Your task to perform on an android device: How do I get to the nearest Best Buy? Image 0: 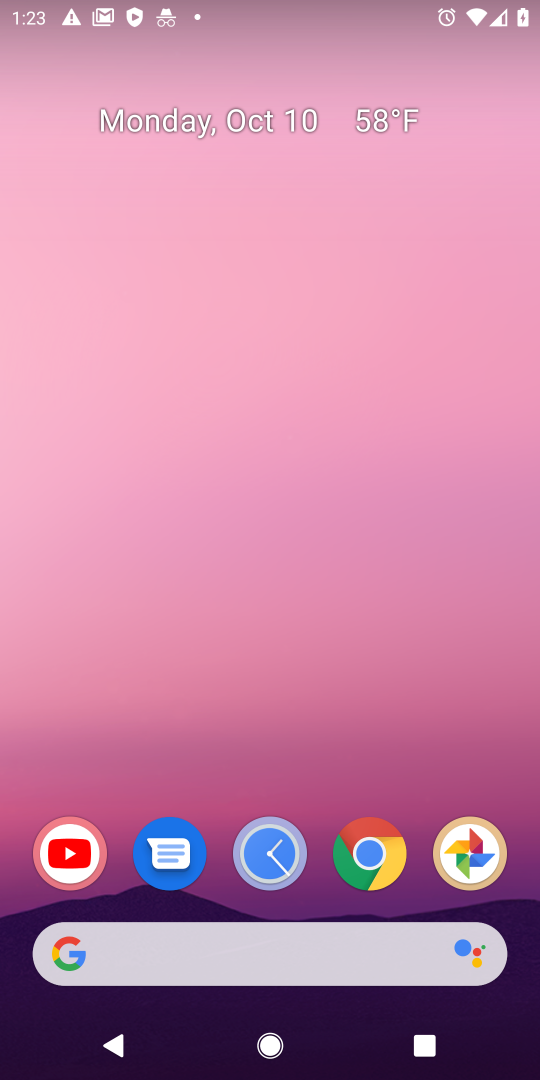
Step 0: click (370, 860)
Your task to perform on an android device: How do I get to the nearest Best Buy? Image 1: 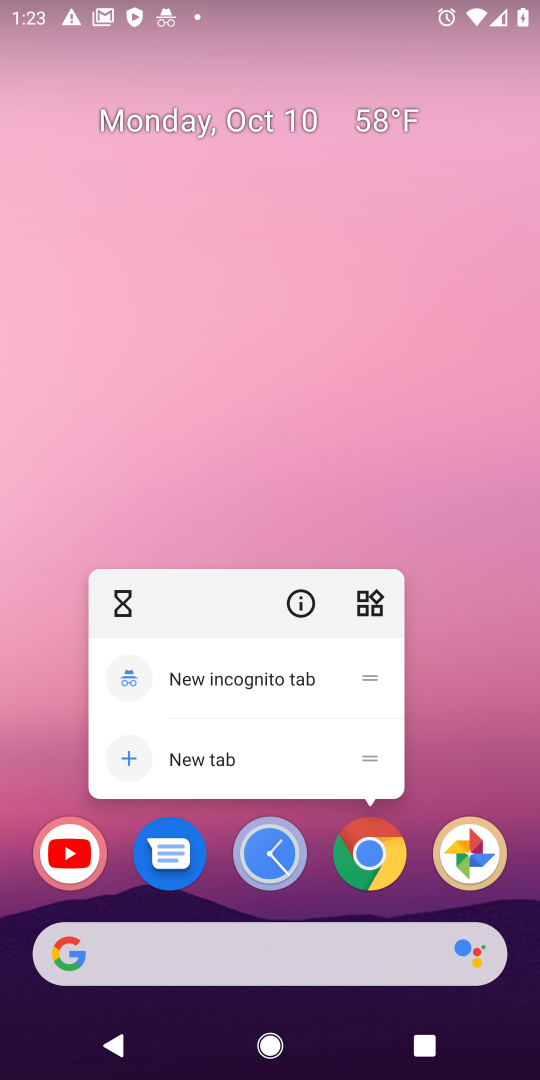
Step 1: click (380, 861)
Your task to perform on an android device: How do I get to the nearest Best Buy? Image 2: 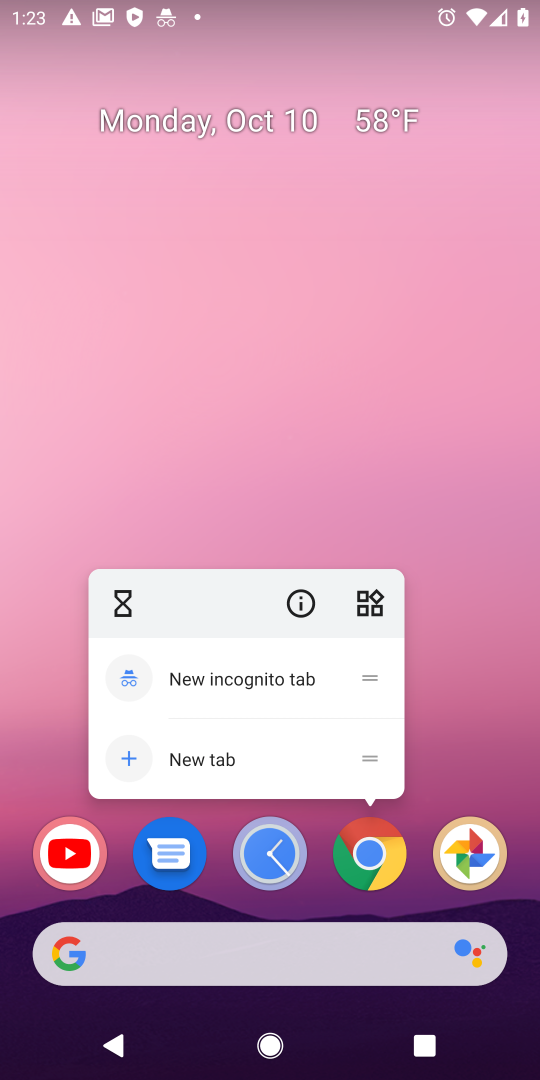
Step 2: click (380, 861)
Your task to perform on an android device: How do I get to the nearest Best Buy? Image 3: 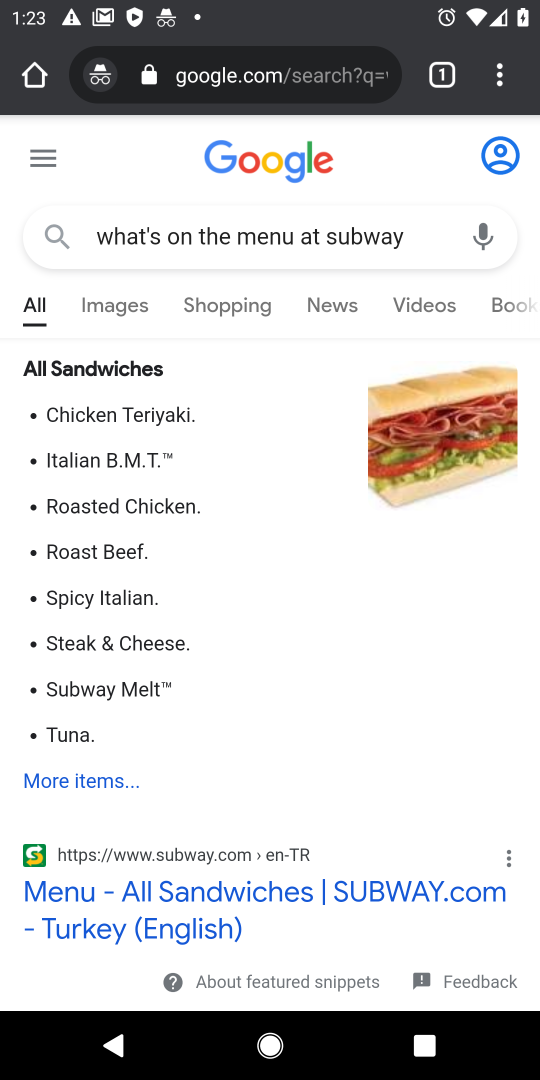
Step 3: click (343, 229)
Your task to perform on an android device: How do I get to the nearest Best Buy? Image 4: 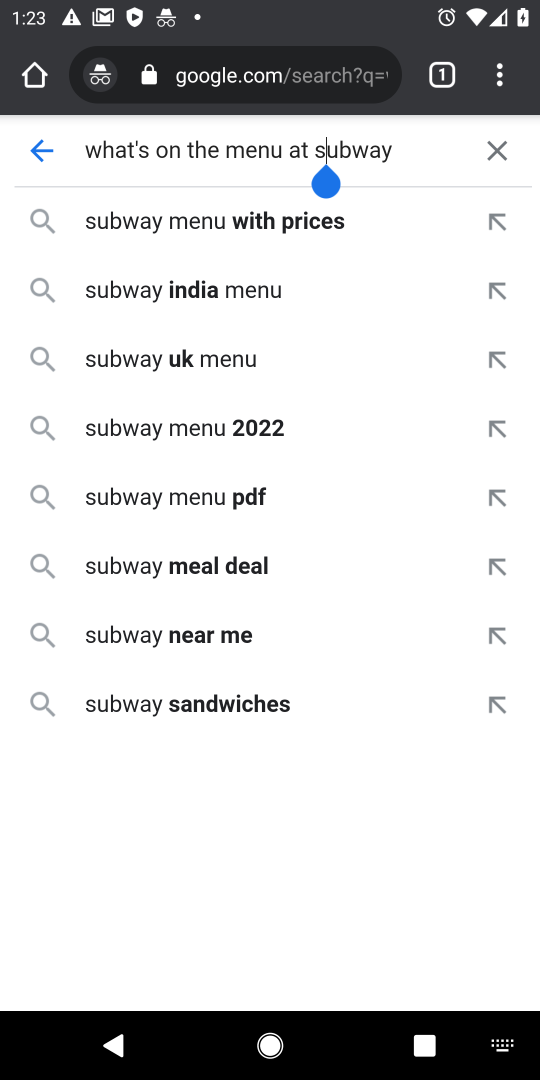
Step 4: click (505, 159)
Your task to perform on an android device: How do I get to the nearest Best Buy? Image 5: 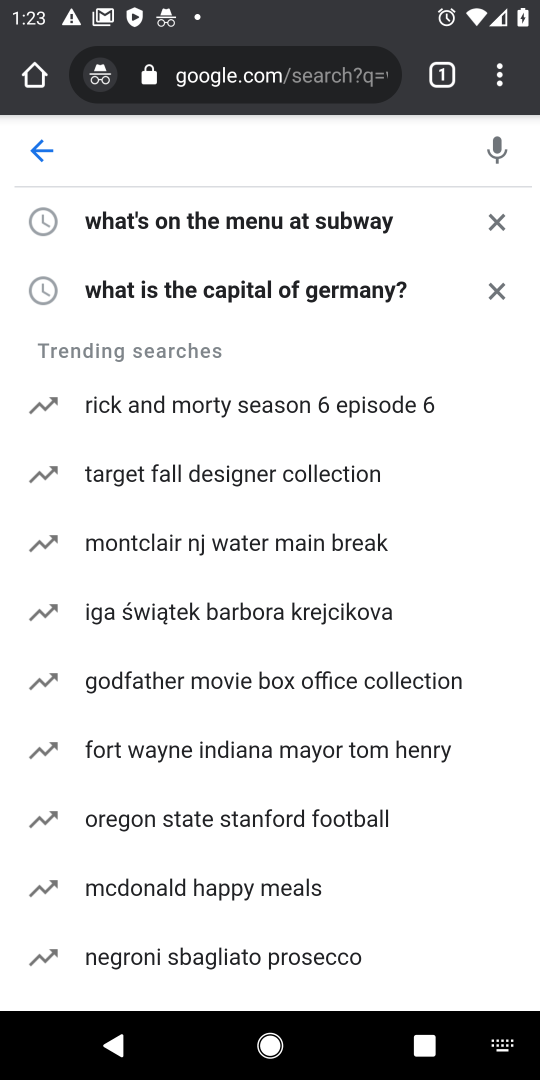
Step 5: type "How do I get to the nearest Best Buy?"
Your task to perform on an android device: How do I get to the nearest Best Buy? Image 6: 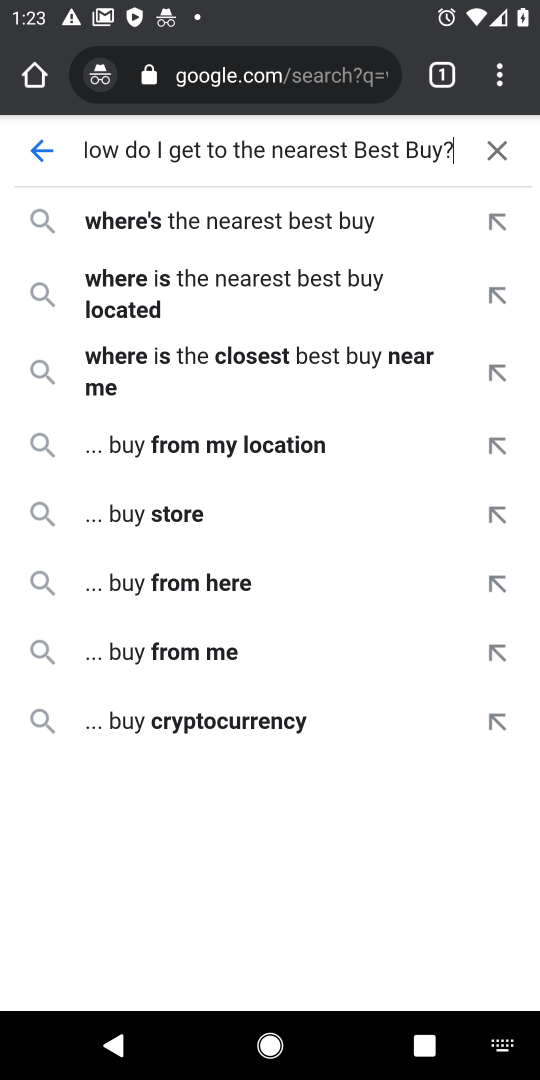
Step 6: press enter
Your task to perform on an android device: How do I get to the nearest Best Buy? Image 7: 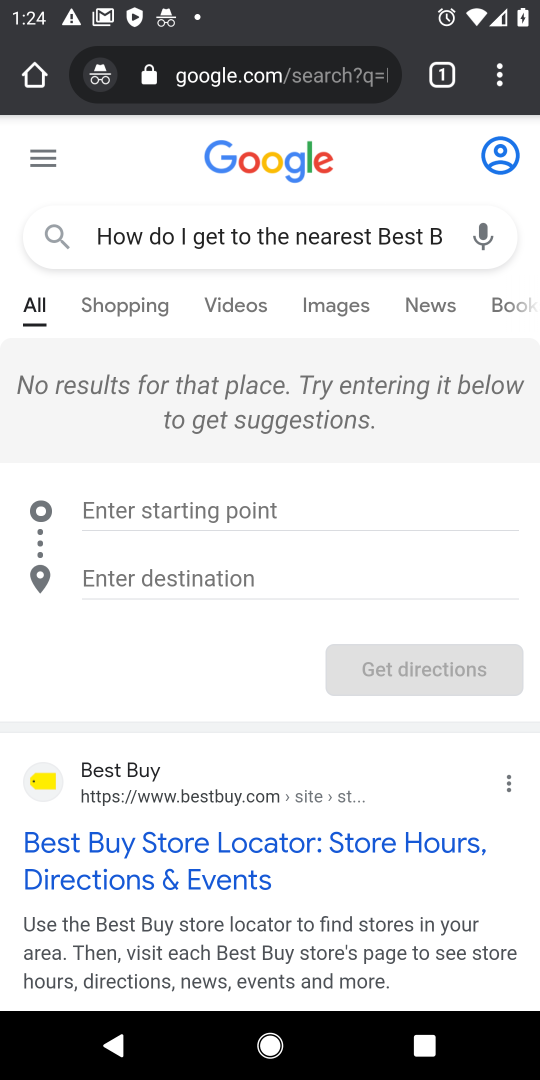
Step 7: task complete